Your task to perform on an android device: toggle pop-ups in chrome Image 0: 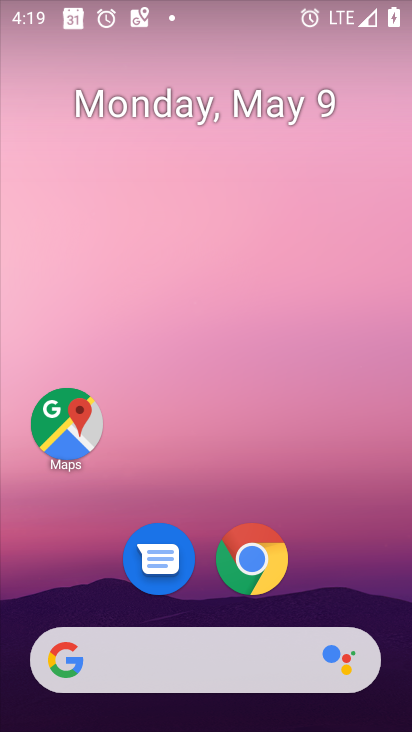
Step 0: click (256, 551)
Your task to perform on an android device: toggle pop-ups in chrome Image 1: 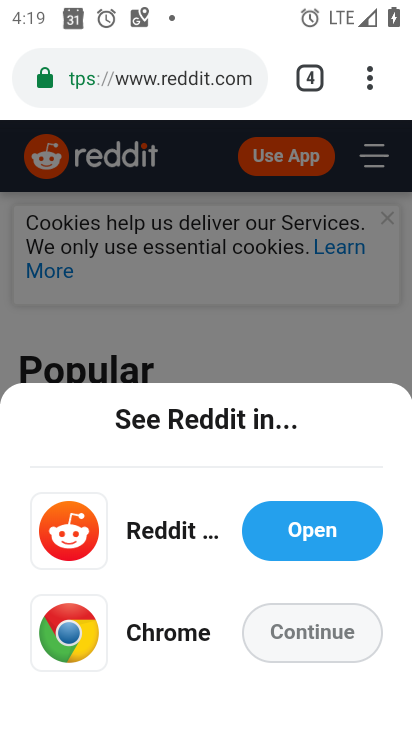
Step 1: click (372, 88)
Your task to perform on an android device: toggle pop-ups in chrome Image 2: 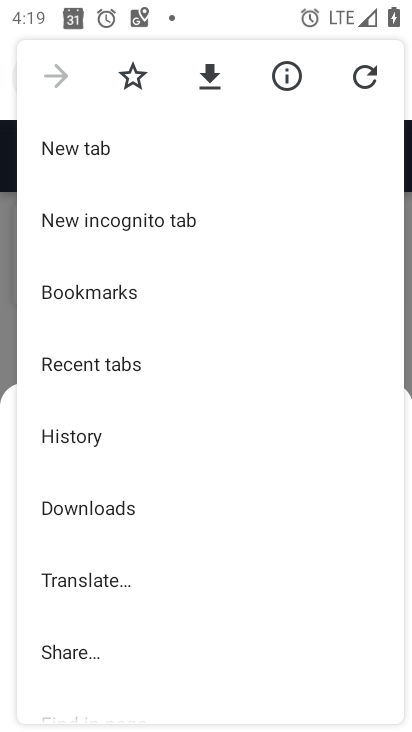
Step 2: drag from (159, 611) to (169, 205)
Your task to perform on an android device: toggle pop-ups in chrome Image 3: 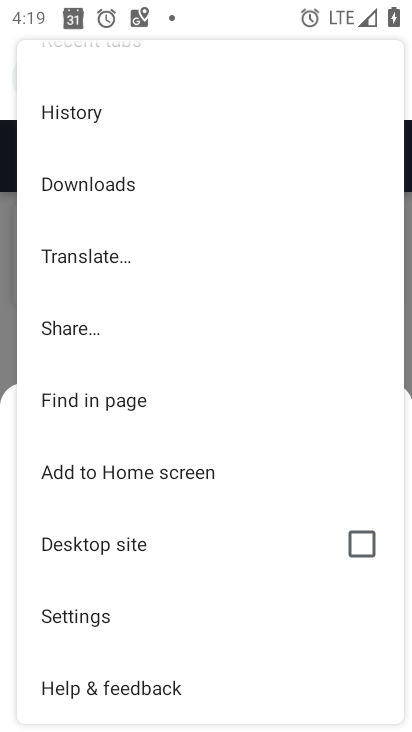
Step 3: click (94, 610)
Your task to perform on an android device: toggle pop-ups in chrome Image 4: 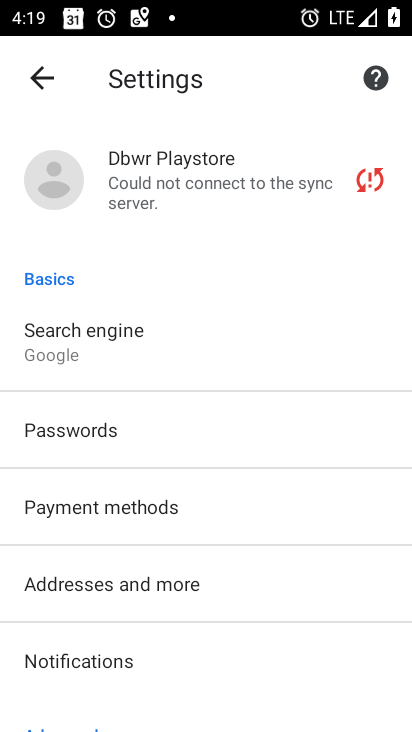
Step 4: drag from (151, 649) to (172, 259)
Your task to perform on an android device: toggle pop-ups in chrome Image 5: 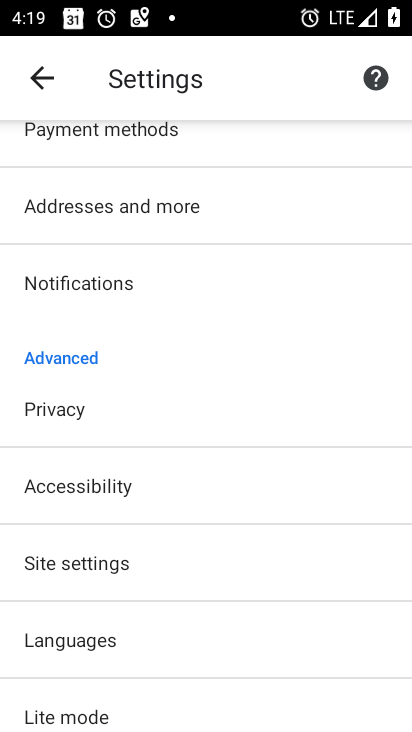
Step 5: click (85, 563)
Your task to perform on an android device: toggle pop-ups in chrome Image 6: 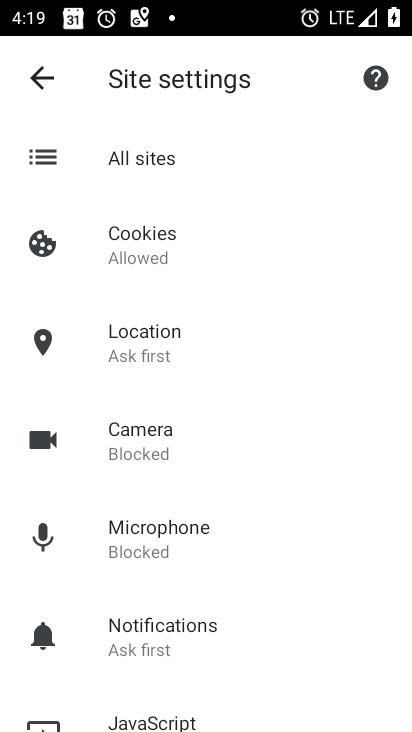
Step 6: drag from (157, 673) to (180, 267)
Your task to perform on an android device: toggle pop-ups in chrome Image 7: 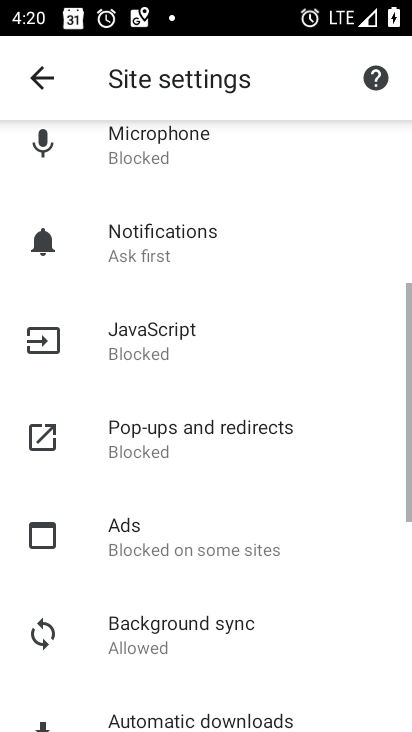
Step 7: click (185, 429)
Your task to perform on an android device: toggle pop-ups in chrome Image 8: 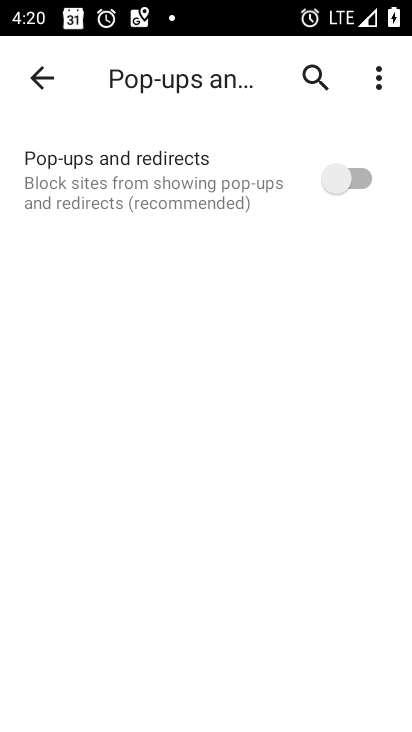
Step 8: click (357, 174)
Your task to perform on an android device: toggle pop-ups in chrome Image 9: 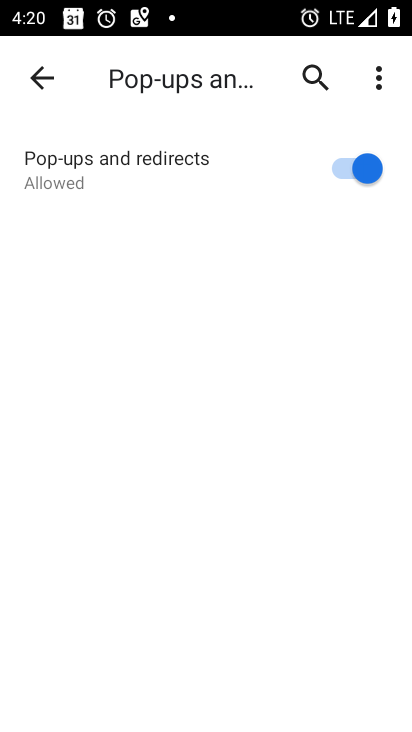
Step 9: task complete